Your task to perform on an android device: Empty the shopping cart on walmart. Search for "jbl flip 4" on walmart, select the first entry, add it to the cart, then select checkout. Image 0: 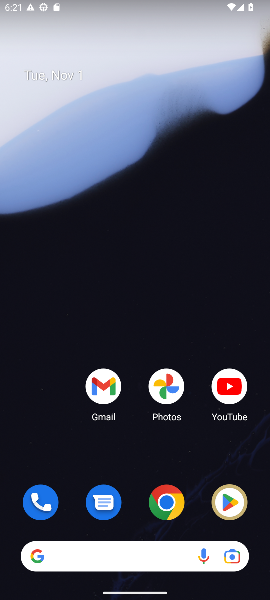
Step 0: drag from (137, 517) to (63, 79)
Your task to perform on an android device: Empty the shopping cart on walmart. Search for "jbl flip 4" on walmart, select the first entry, add it to the cart, then select checkout. Image 1: 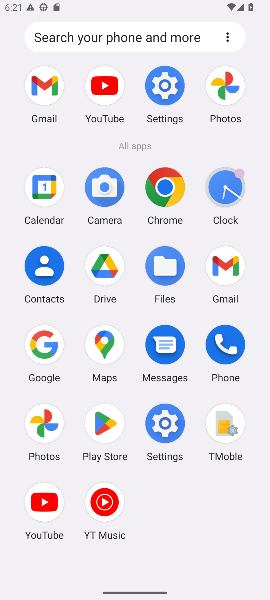
Step 1: click (47, 342)
Your task to perform on an android device: Empty the shopping cart on walmart. Search for "jbl flip 4" on walmart, select the first entry, add it to the cart, then select checkout. Image 2: 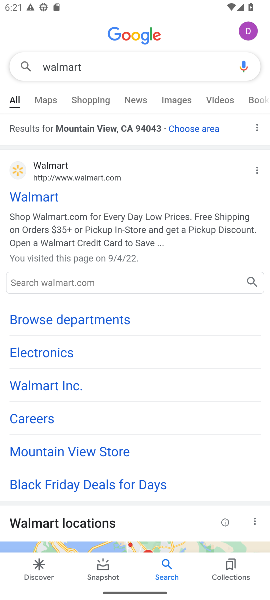
Step 2: click (94, 65)
Your task to perform on an android device: Empty the shopping cart on walmart. Search for "jbl flip 4" on walmart, select the first entry, add it to the cart, then select checkout. Image 3: 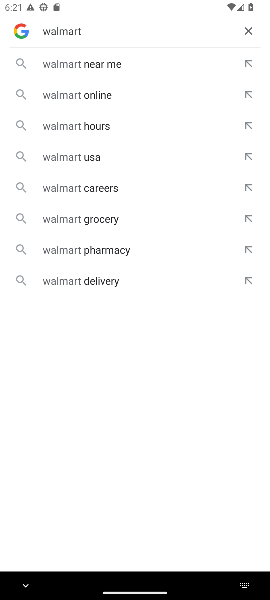
Step 3: click (249, 29)
Your task to perform on an android device: Empty the shopping cart on walmart. Search for "jbl flip 4" on walmart, select the first entry, add it to the cart, then select checkout. Image 4: 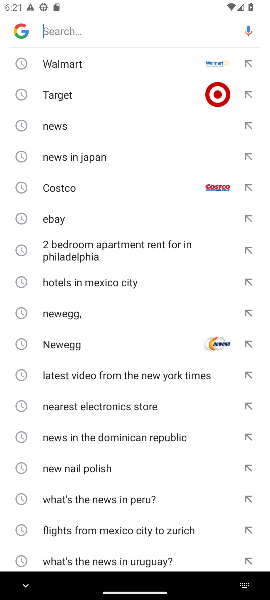
Step 4: click (110, 33)
Your task to perform on an android device: Empty the shopping cart on walmart. Search for "jbl flip 4" on walmart, select the first entry, add it to the cart, then select checkout. Image 5: 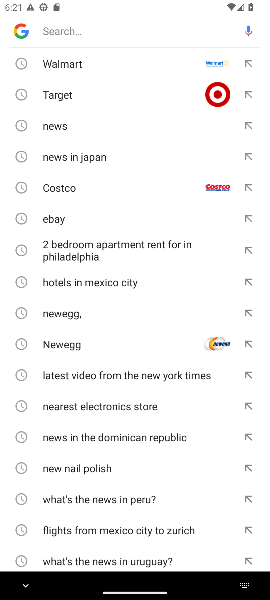
Step 5: click (67, 56)
Your task to perform on an android device: Empty the shopping cart on walmart. Search for "jbl flip 4" on walmart, select the first entry, add it to the cart, then select checkout. Image 6: 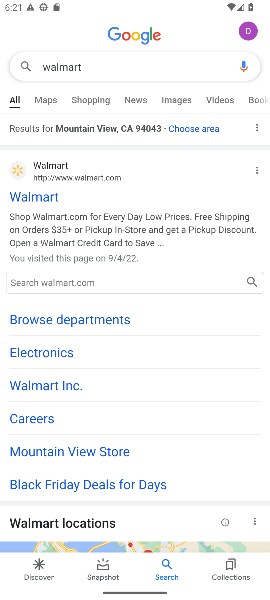
Step 6: click (17, 191)
Your task to perform on an android device: Empty the shopping cart on walmart. Search for "jbl flip 4" on walmart, select the first entry, add it to the cart, then select checkout. Image 7: 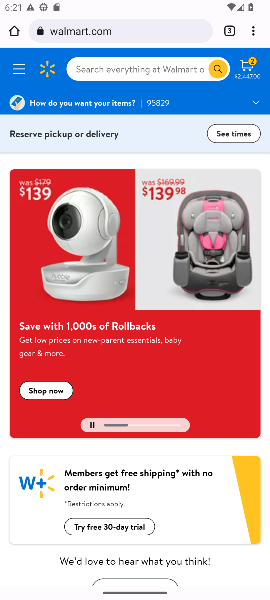
Step 7: click (128, 71)
Your task to perform on an android device: Empty the shopping cart on walmart. Search for "jbl flip 4" on walmart, select the first entry, add it to the cart, then select checkout. Image 8: 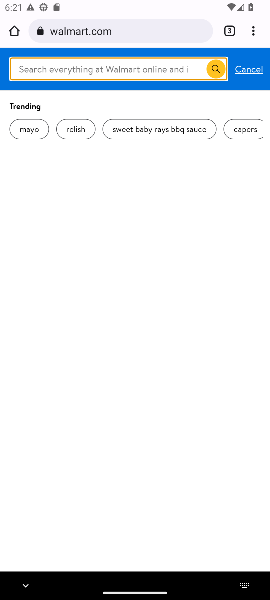
Step 8: type "jbl flip 4"
Your task to perform on an android device: Empty the shopping cart on walmart. Search for "jbl flip 4" on walmart, select the first entry, add it to the cart, then select checkout. Image 9: 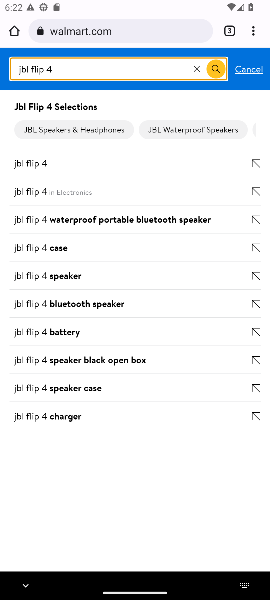
Step 9: click (74, 166)
Your task to perform on an android device: Empty the shopping cart on walmart. Search for "jbl flip 4" on walmart, select the first entry, add it to the cart, then select checkout. Image 10: 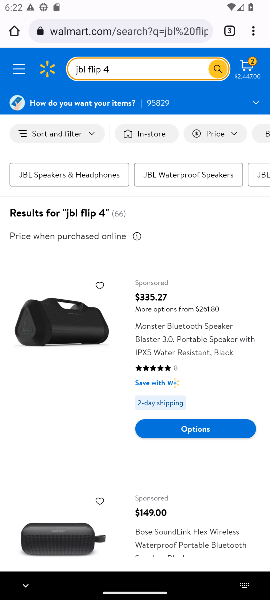
Step 10: click (149, 299)
Your task to perform on an android device: Empty the shopping cart on walmart. Search for "jbl flip 4" on walmart, select the first entry, add it to the cart, then select checkout. Image 11: 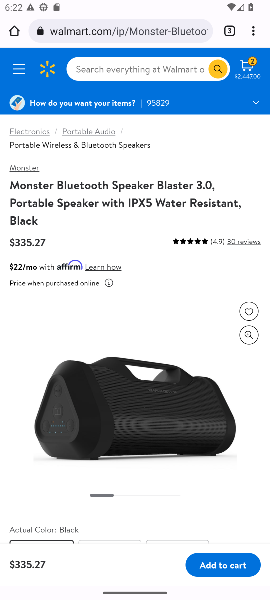
Step 11: click (228, 563)
Your task to perform on an android device: Empty the shopping cart on walmart. Search for "jbl flip 4" on walmart, select the first entry, add it to the cart, then select checkout. Image 12: 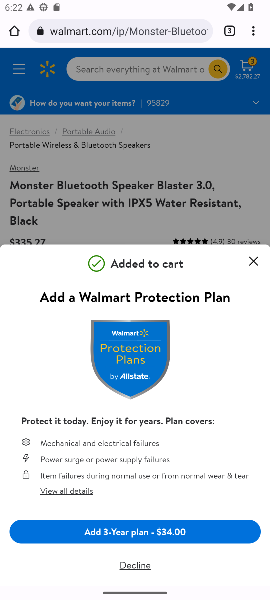
Step 12: click (249, 258)
Your task to perform on an android device: Empty the shopping cart on walmart. Search for "jbl flip 4" on walmart, select the first entry, add it to the cart, then select checkout. Image 13: 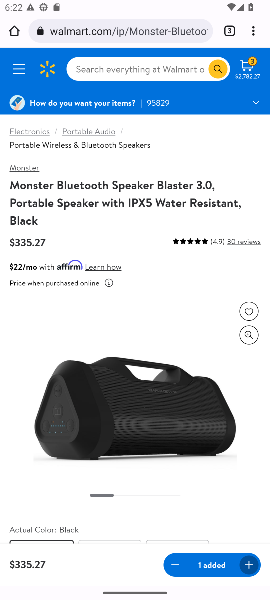
Step 13: drag from (167, 484) to (130, 277)
Your task to perform on an android device: Empty the shopping cart on walmart. Search for "jbl flip 4" on walmart, select the first entry, add it to the cart, then select checkout. Image 14: 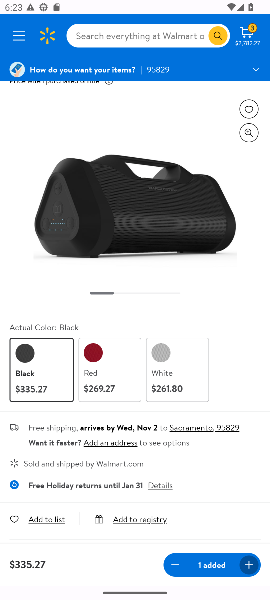
Step 14: click (249, 27)
Your task to perform on an android device: Empty the shopping cart on walmart. Search for "jbl flip 4" on walmart, select the first entry, add it to the cart, then select checkout. Image 15: 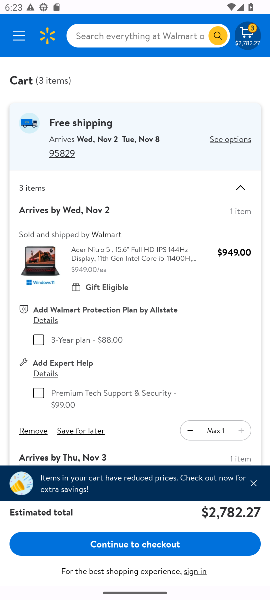
Step 15: click (129, 548)
Your task to perform on an android device: Empty the shopping cart on walmart. Search for "jbl flip 4" on walmart, select the first entry, add it to the cart, then select checkout. Image 16: 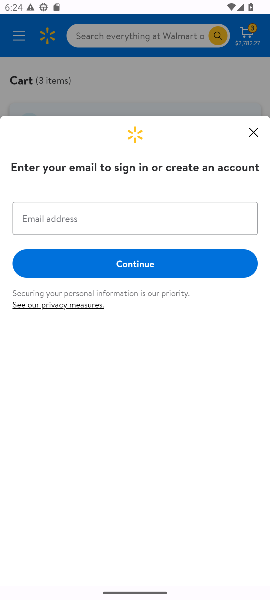
Step 16: task complete